Your task to perform on an android device: find which apps use the phone's location Image 0: 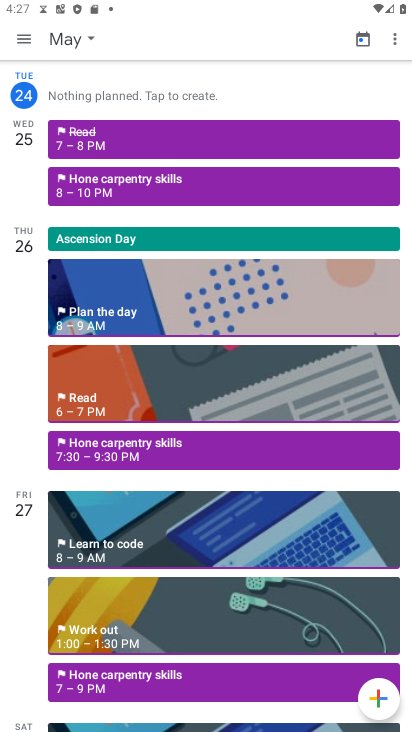
Step 0: press back button
Your task to perform on an android device: find which apps use the phone's location Image 1: 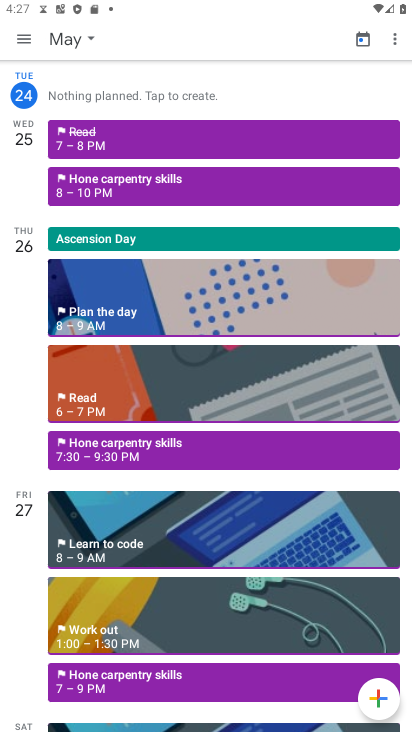
Step 1: press back button
Your task to perform on an android device: find which apps use the phone's location Image 2: 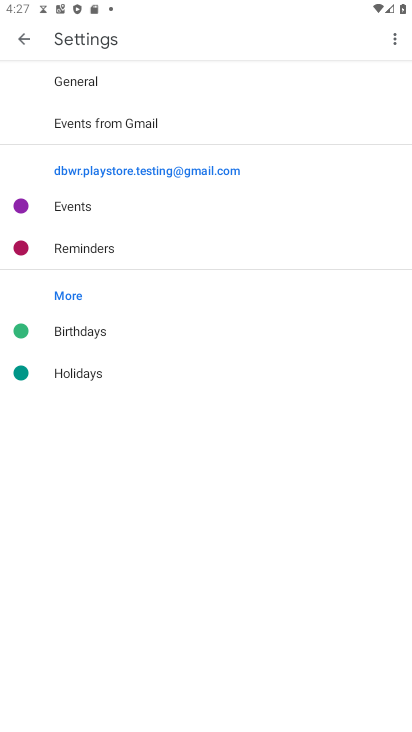
Step 2: press back button
Your task to perform on an android device: find which apps use the phone's location Image 3: 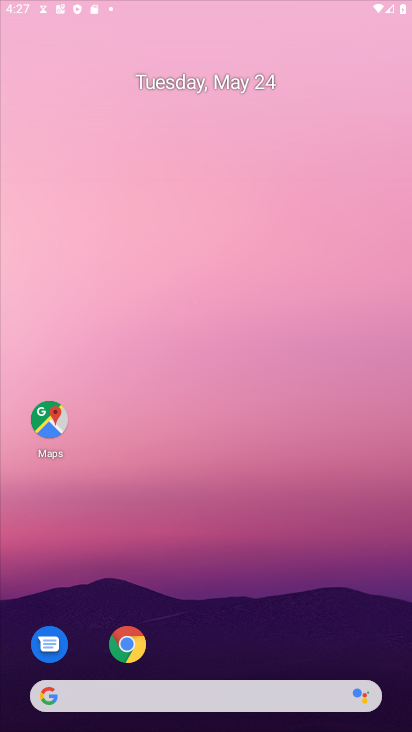
Step 3: press back button
Your task to perform on an android device: find which apps use the phone's location Image 4: 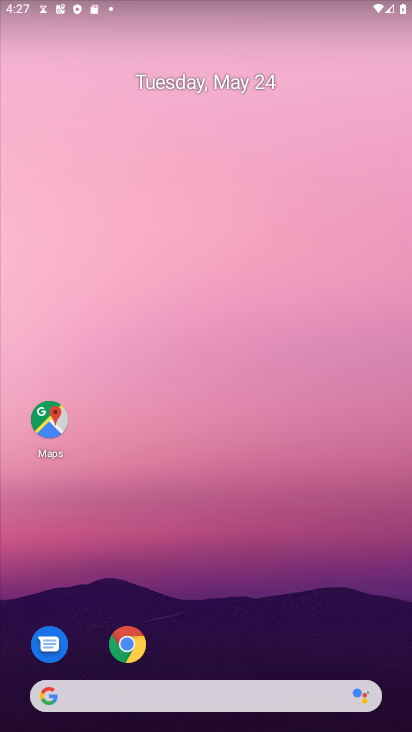
Step 4: drag from (197, 610) to (173, 50)
Your task to perform on an android device: find which apps use the phone's location Image 5: 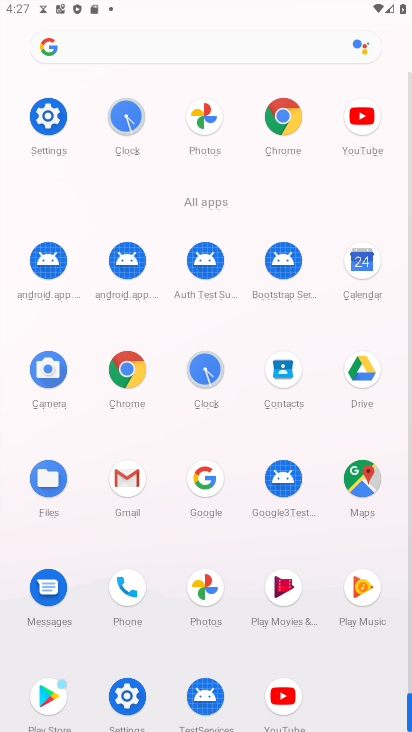
Step 5: click (39, 114)
Your task to perform on an android device: find which apps use the phone's location Image 6: 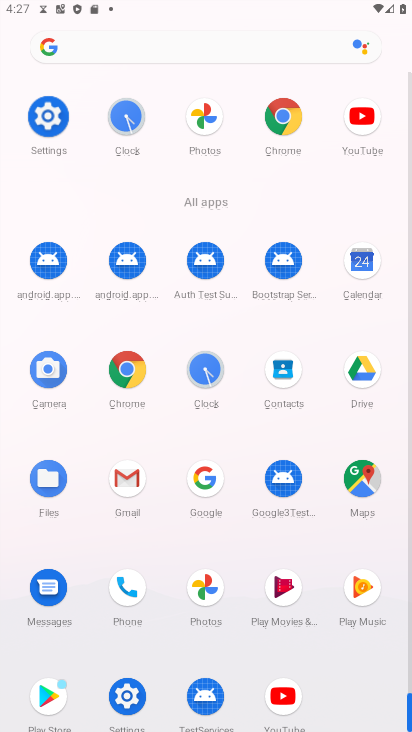
Step 6: click (43, 113)
Your task to perform on an android device: find which apps use the phone's location Image 7: 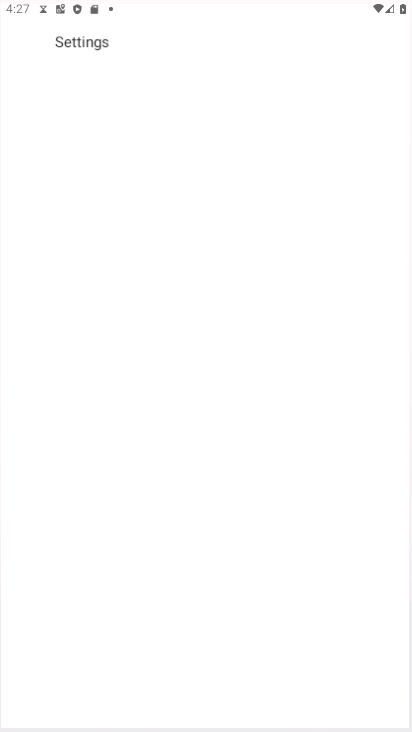
Step 7: click (43, 111)
Your task to perform on an android device: find which apps use the phone's location Image 8: 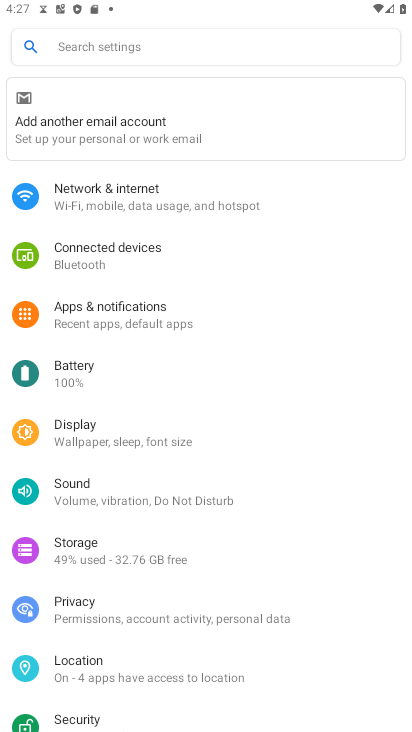
Step 8: click (91, 679)
Your task to perform on an android device: find which apps use the phone's location Image 9: 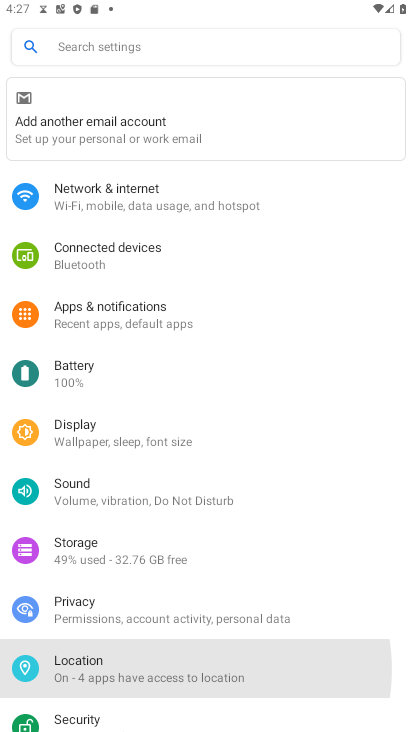
Step 9: click (91, 678)
Your task to perform on an android device: find which apps use the phone's location Image 10: 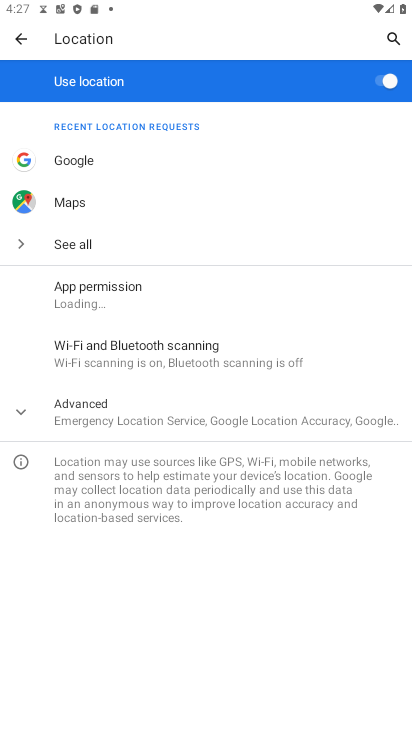
Step 10: click (99, 290)
Your task to perform on an android device: find which apps use the phone's location Image 11: 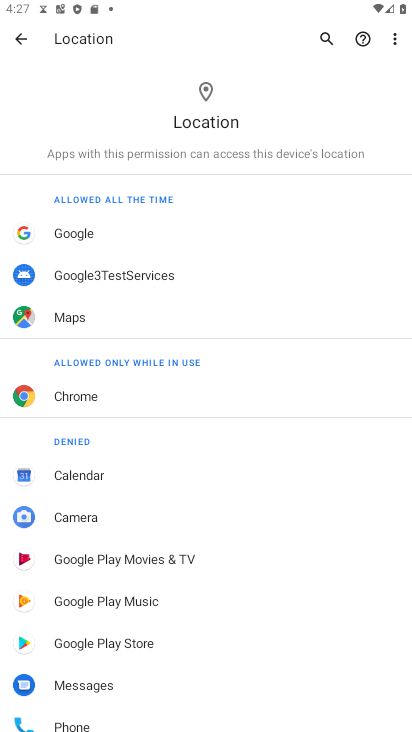
Step 11: task complete